Your task to perform on an android device: open app "Upside-Cash back on gas & food" (install if not already installed) Image 0: 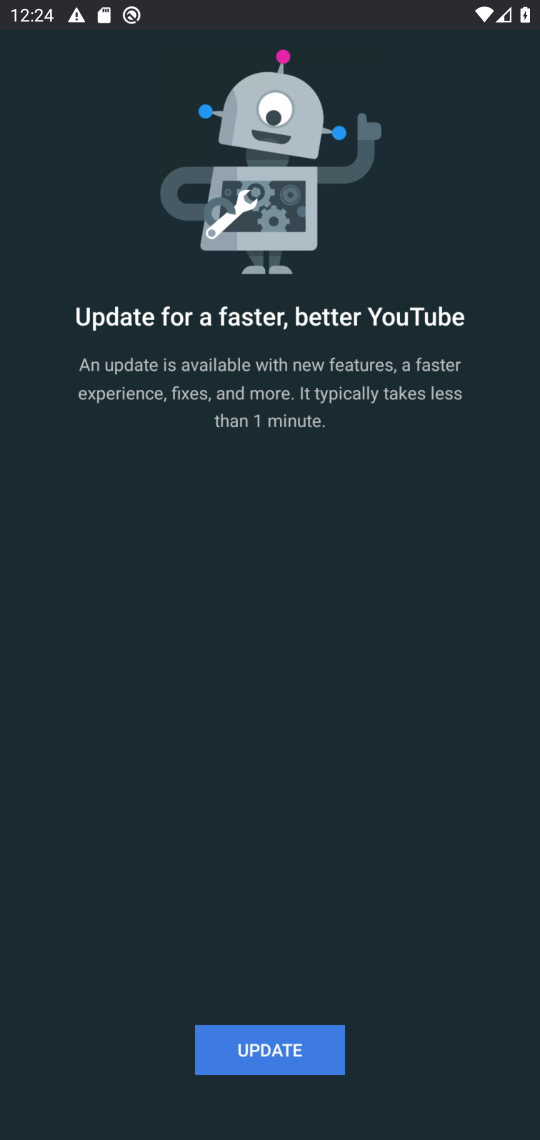
Step 0: press home button
Your task to perform on an android device: open app "Upside-Cash back on gas & food" (install if not already installed) Image 1: 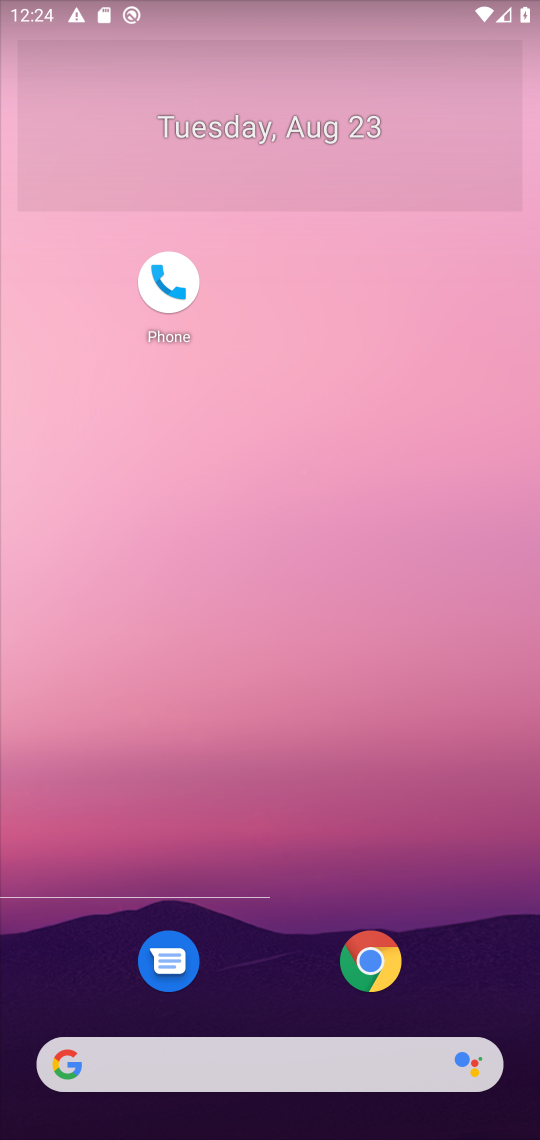
Step 1: drag from (251, 995) to (139, 136)
Your task to perform on an android device: open app "Upside-Cash back on gas & food" (install if not already installed) Image 2: 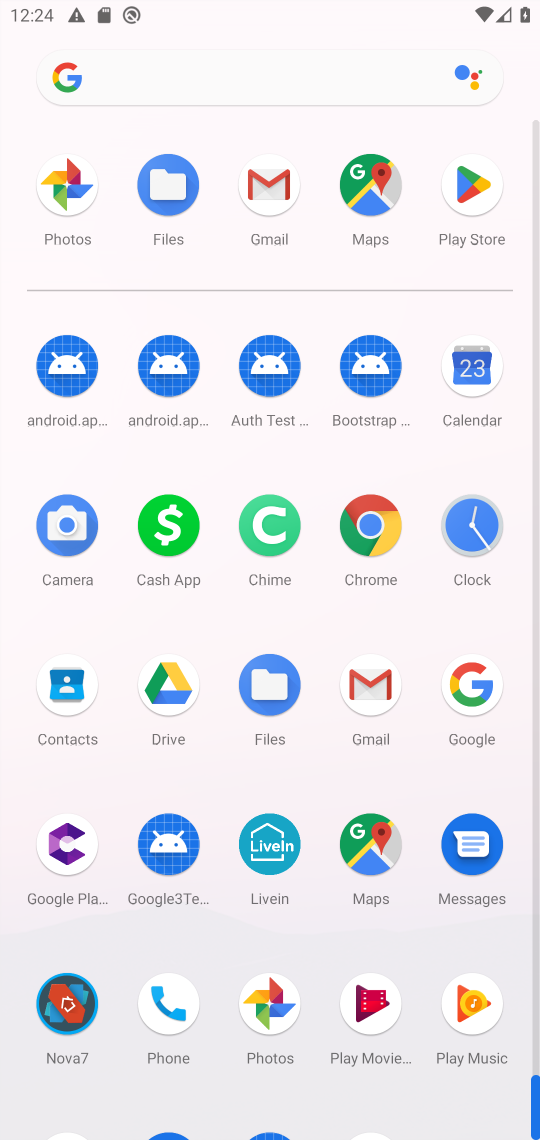
Step 2: click (452, 199)
Your task to perform on an android device: open app "Upside-Cash back on gas & food" (install if not already installed) Image 3: 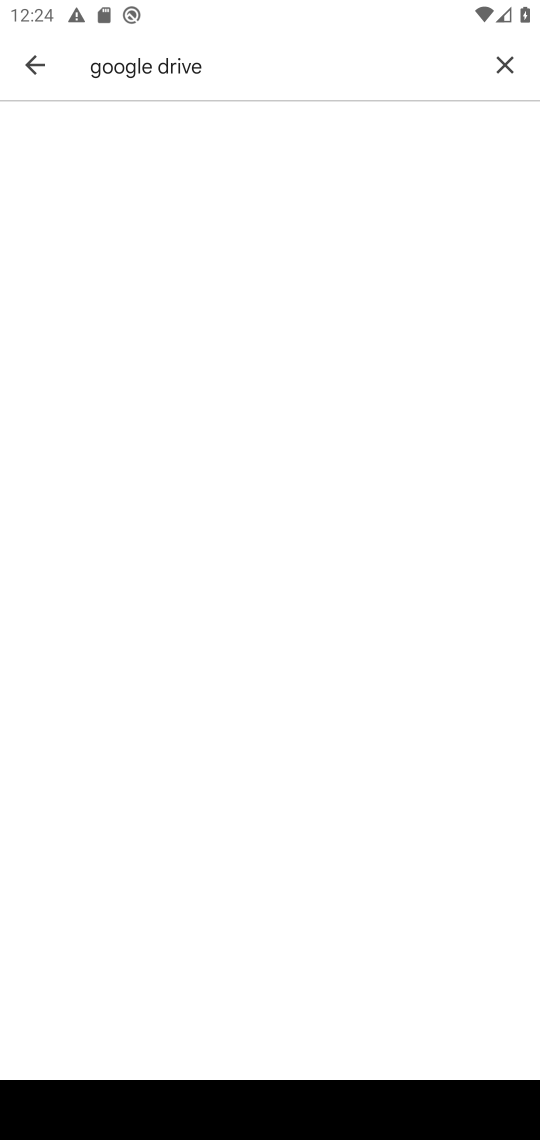
Step 3: click (504, 66)
Your task to perform on an android device: open app "Upside-Cash back on gas & food" (install if not already installed) Image 4: 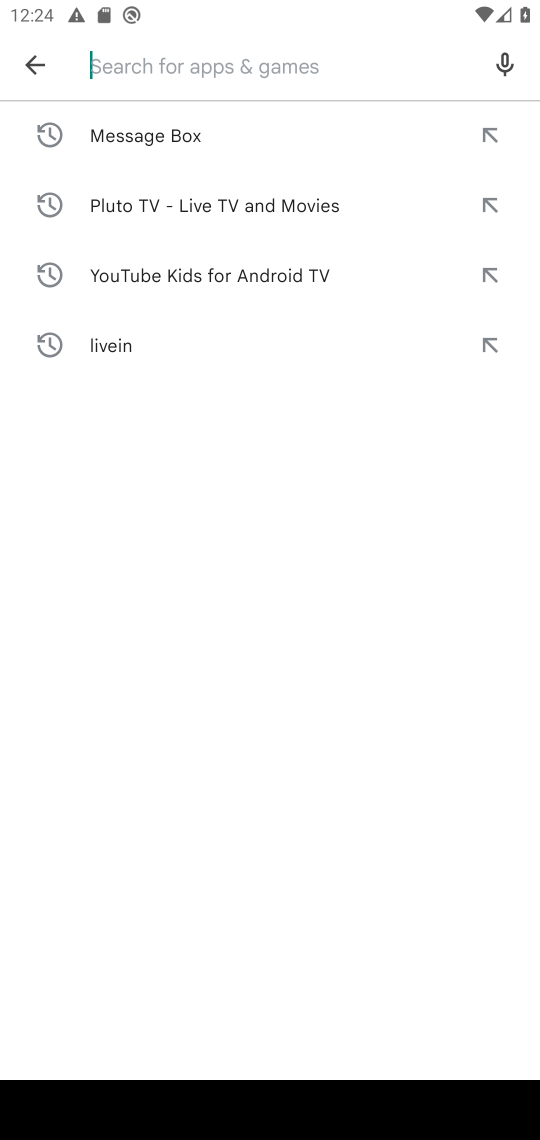
Step 4: type "upside cash"
Your task to perform on an android device: open app "Upside-Cash back on gas & food" (install if not already installed) Image 5: 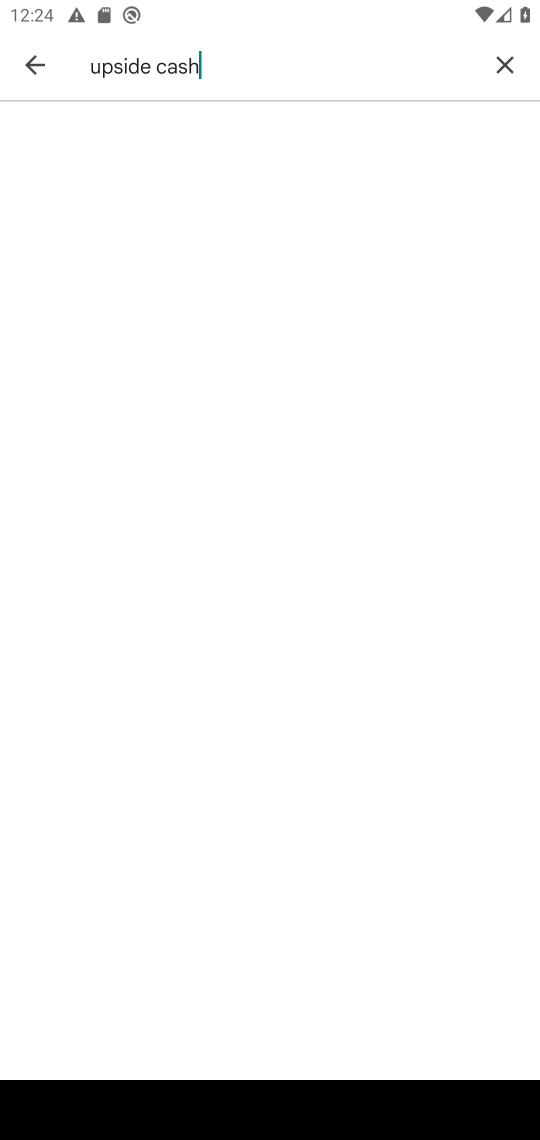
Step 5: task complete